Your task to perform on an android device: Toggle the flashlight Image 0: 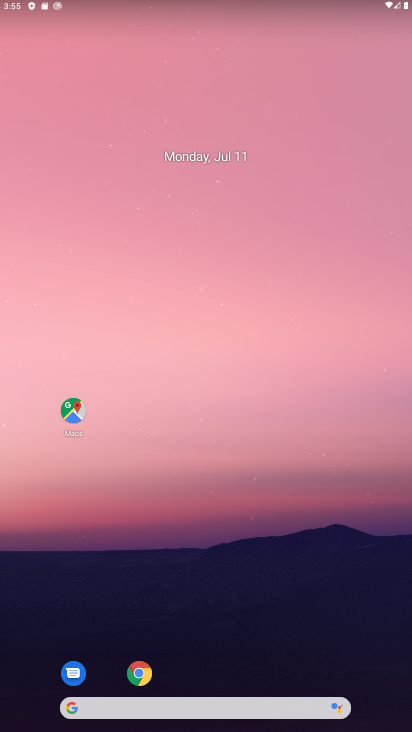
Step 0: drag from (200, 661) to (216, 228)
Your task to perform on an android device: Toggle the flashlight Image 1: 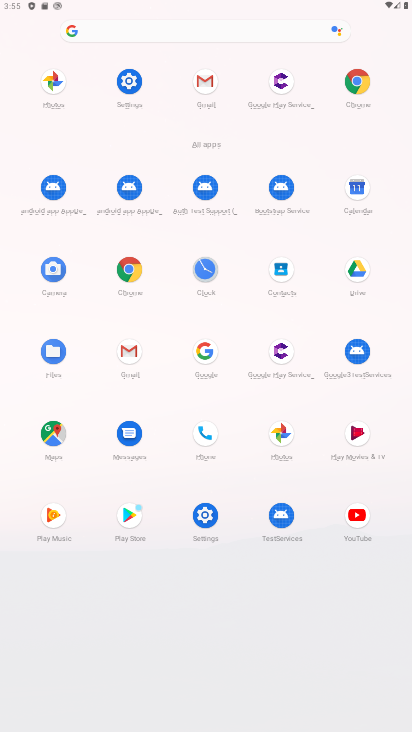
Step 1: click (128, 78)
Your task to perform on an android device: Toggle the flashlight Image 2: 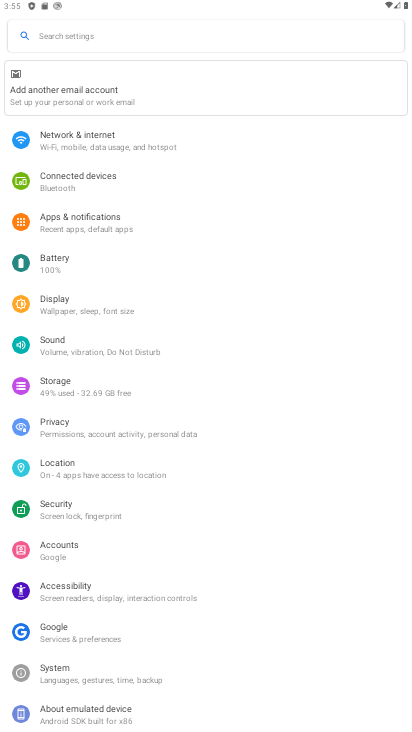
Step 2: click (72, 312)
Your task to perform on an android device: Toggle the flashlight Image 3: 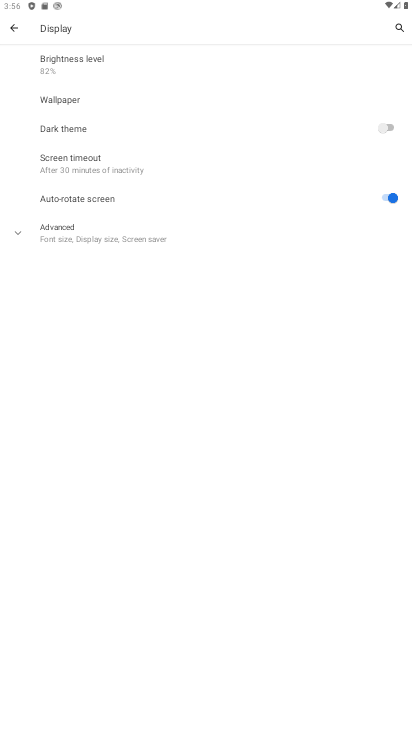
Step 3: click (83, 128)
Your task to perform on an android device: Toggle the flashlight Image 4: 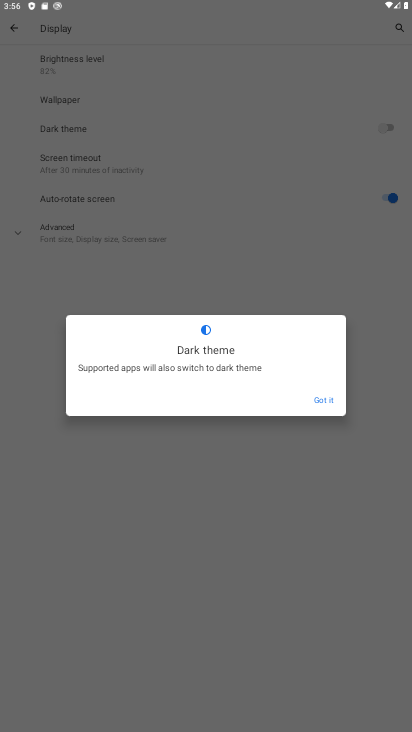
Step 4: click (240, 200)
Your task to perform on an android device: Toggle the flashlight Image 5: 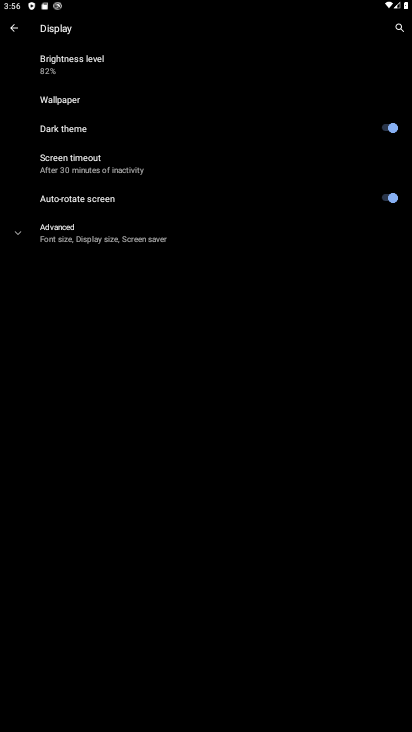
Step 5: click (118, 239)
Your task to perform on an android device: Toggle the flashlight Image 6: 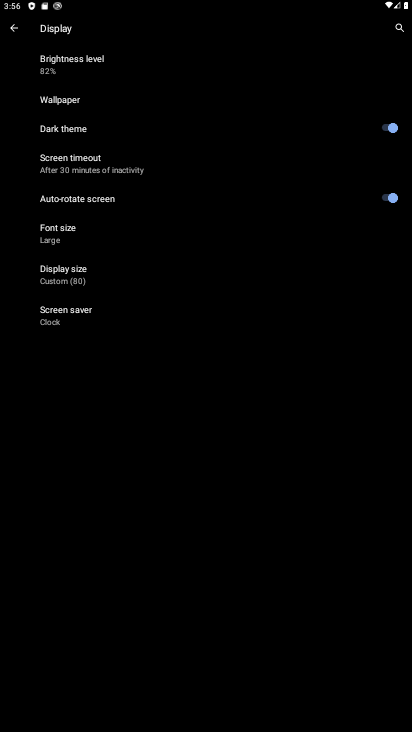
Step 6: click (75, 305)
Your task to perform on an android device: Toggle the flashlight Image 7: 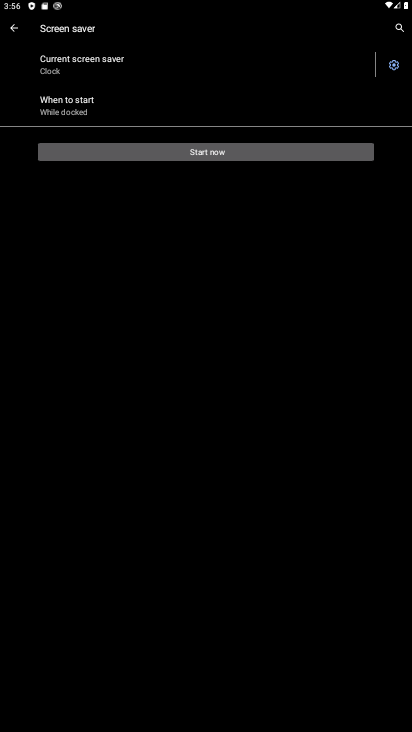
Step 7: task complete